Your task to perform on an android device: turn on javascript in the chrome app Image 0: 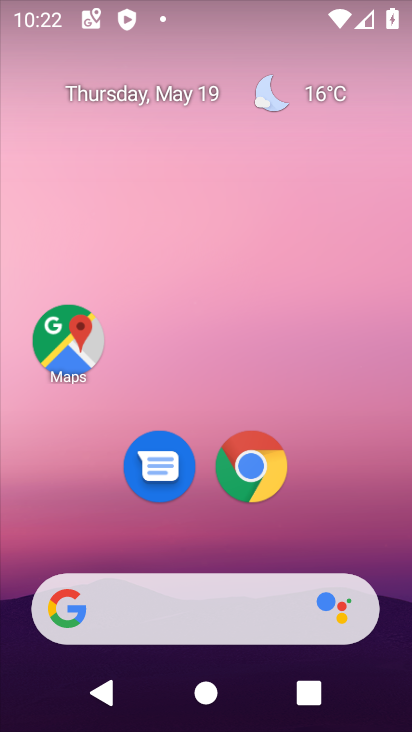
Step 0: click (267, 453)
Your task to perform on an android device: turn on javascript in the chrome app Image 1: 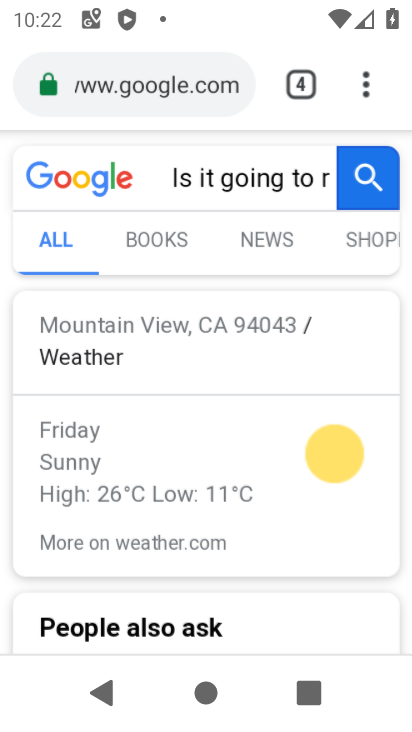
Step 1: click (386, 70)
Your task to perform on an android device: turn on javascript in the chrome app Image 2: 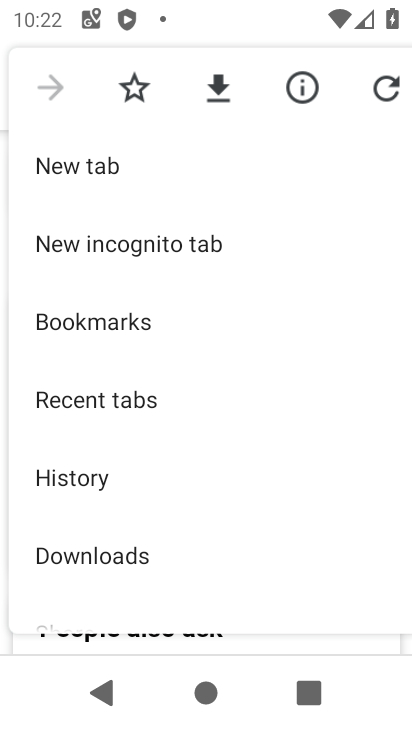
Step 2: drag from (224, 542) to (222, 201)
Your task to perform on an android device: turn on javascript in the chrome app Image 3: 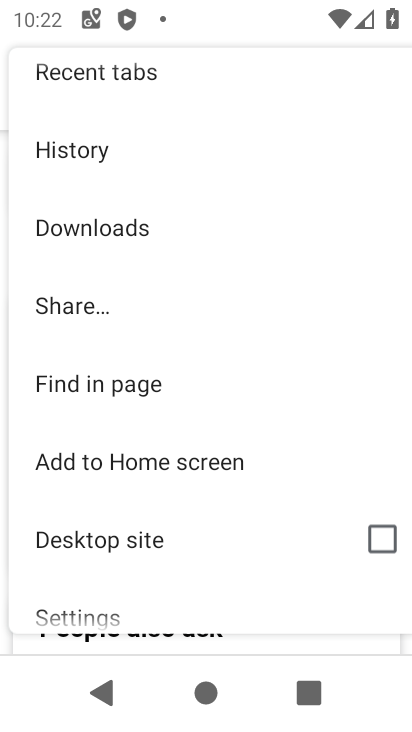
Step 3: click (134, 600)
Your task to perform on an android device: turn on javascript in the chrome app Image 4: 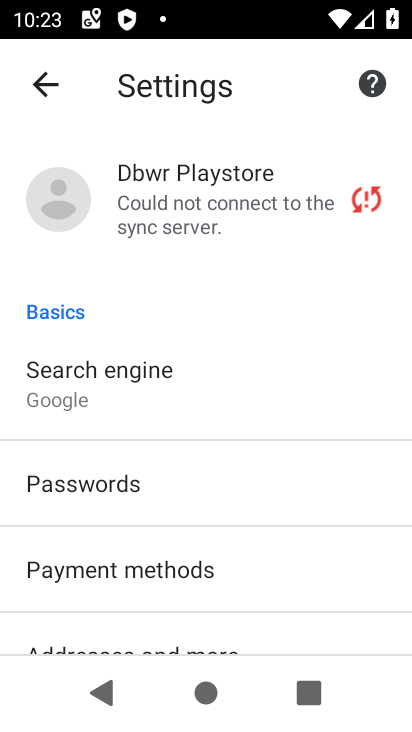
Step 4: drag from (188, 504) to (243, 163)
Your task to perform on an android device: turn on javascript in the chrome app Image 5: 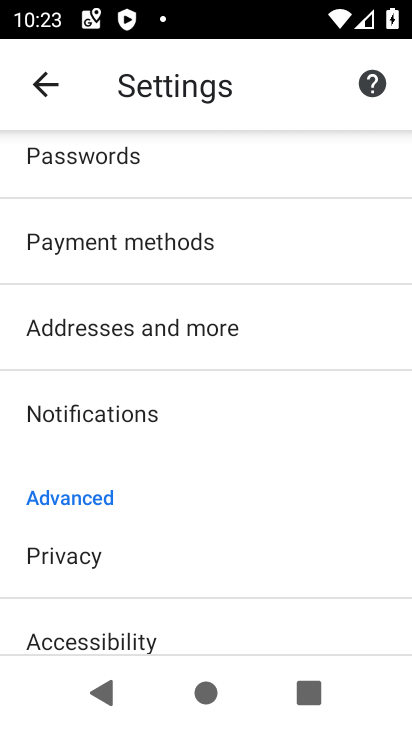
Step 5: drag from (177, 544) to (260, 162)
Your task to perform on an android device: turn on javascript in the chrome app Image 6: 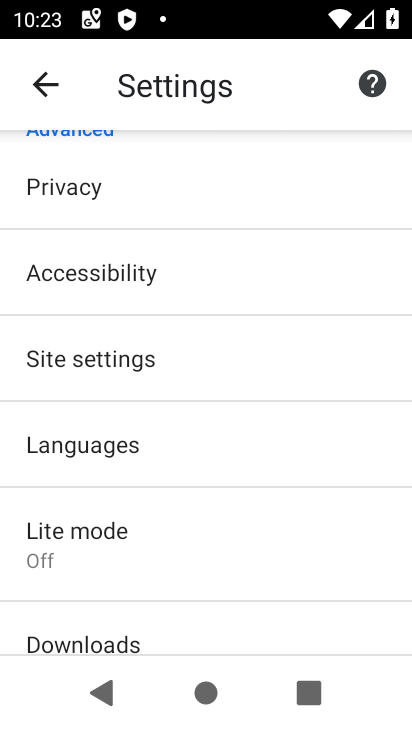
Step 6: click (195, 357)
Your task to perform on an android device: turn on javascript in the chrome app Image 7: 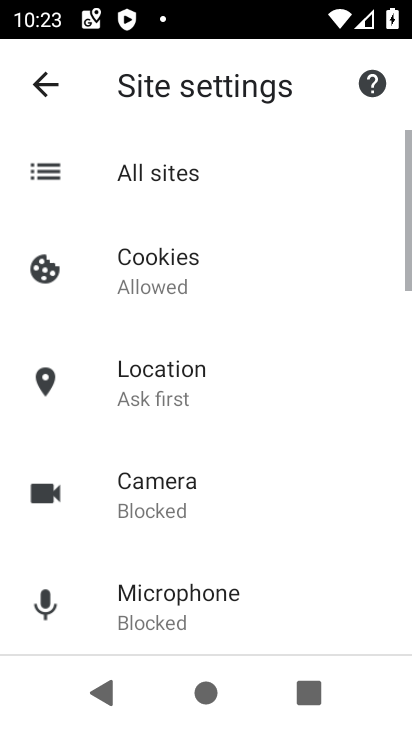
Step 7: drag from (174, 579) to (235, 214)
Your task to perform on an android device: turn on javascript in the chrome app Image 8: 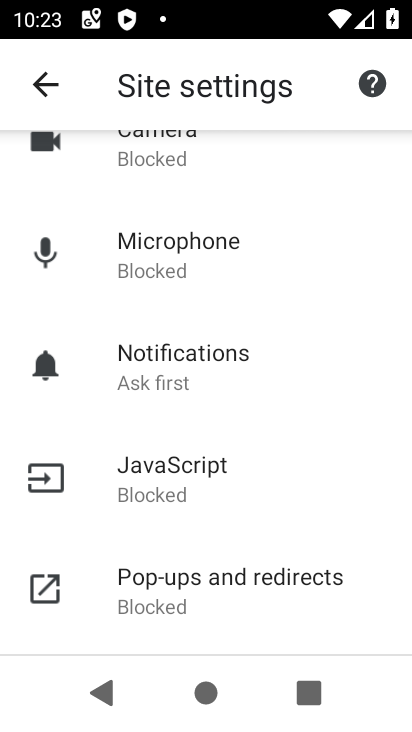
Step 8: click (172, 462)
Your task to perform on an android device: turn on javascript in the chrome app Image 9: 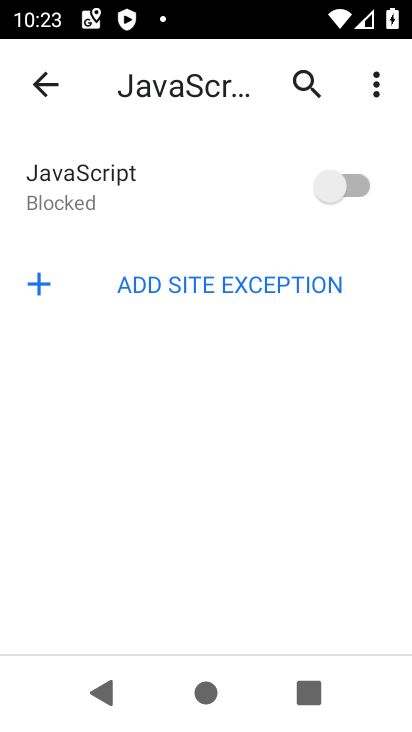
Step 9: click (347, 191)
Your task to perform on an android device: turn on javascript in the chrome app Image 10: 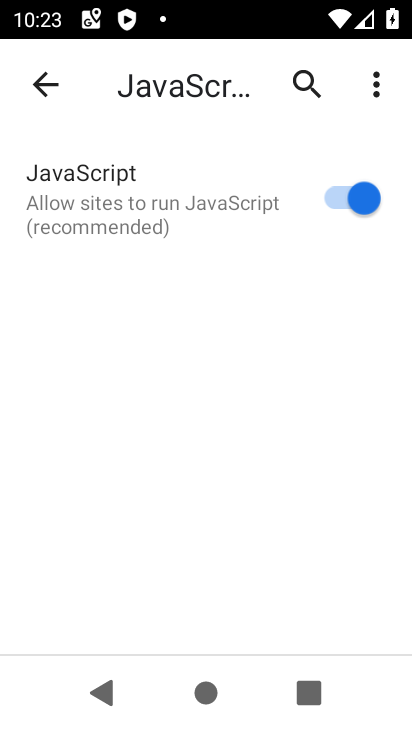
Step 10: task complete